Your task to perform on an android device: Show me popular games on the Play Store Image 0: 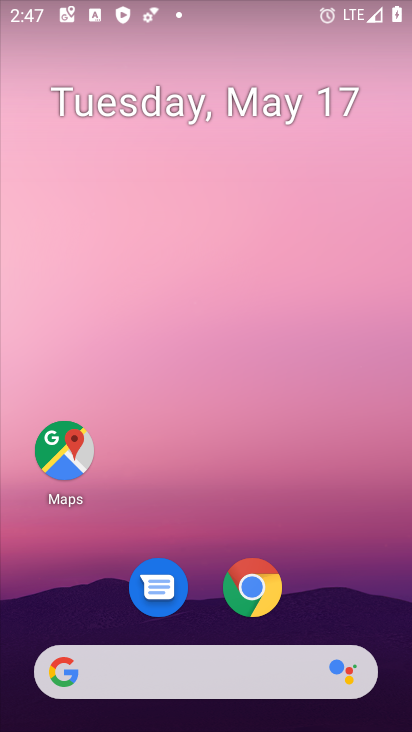
Step 0: drag from (205, 554) to (191, 232)
Your task to perform on an android device: Show me popular games on the Play Store Image 1: 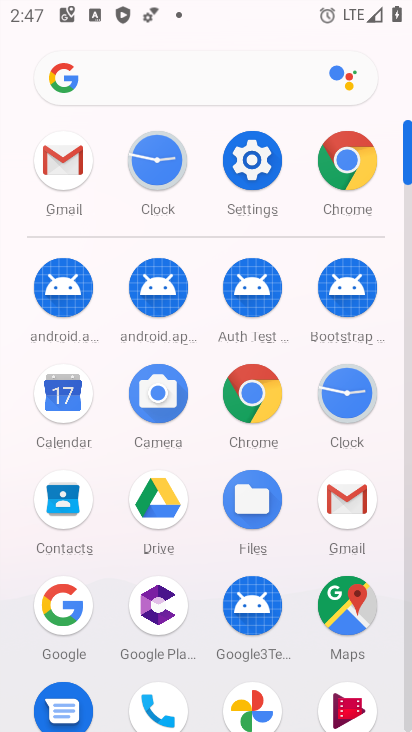
Step 1: drag from (193, 625) to (174, 161)
Your task to perform on an android device: Show me popular games on the Play Store Image 2: 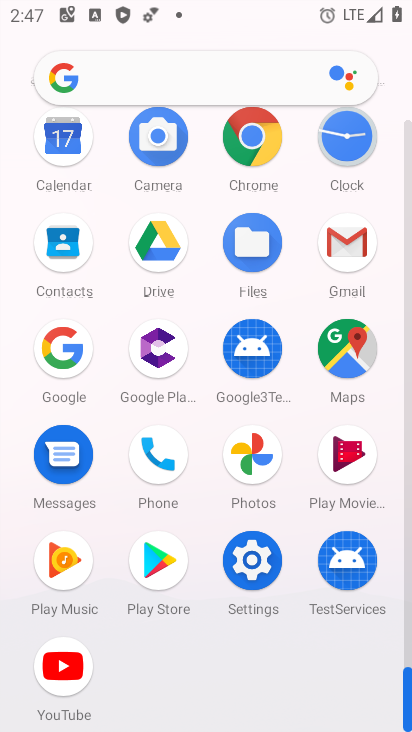
Step 2: click (153, 588)
Your task to perform on an android device: Show me popular games on the Play Store Image 3: 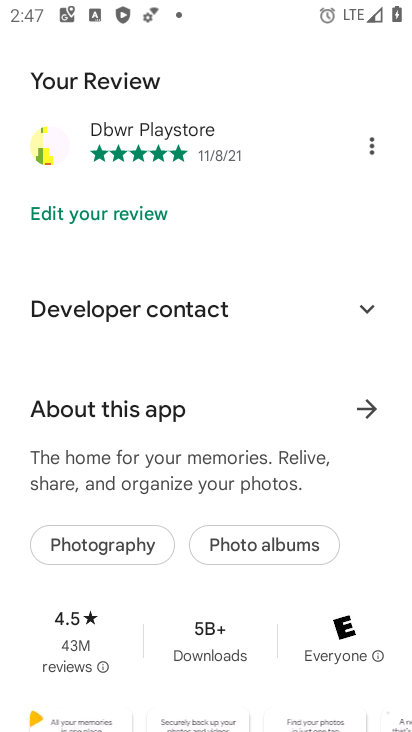
Step 3: drag from (209, 599) to (288, 730)
Your task to perform on an android device: Show me popular games on the Play Store Image 4: 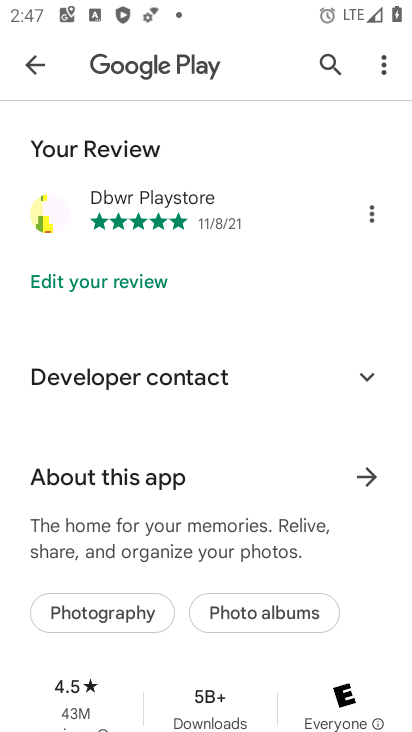
Step 4: click (31, 56)
Your task to perform on an android device: Show me popular games on the Play Store Image 5: 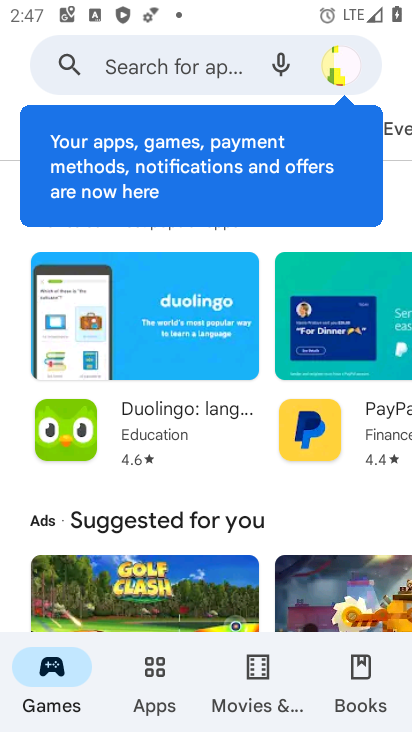
Step 5: drag from (296, 519) to (285, 231)
Your task to perform on an android device: Show me popular games on the Play Store Image 6: 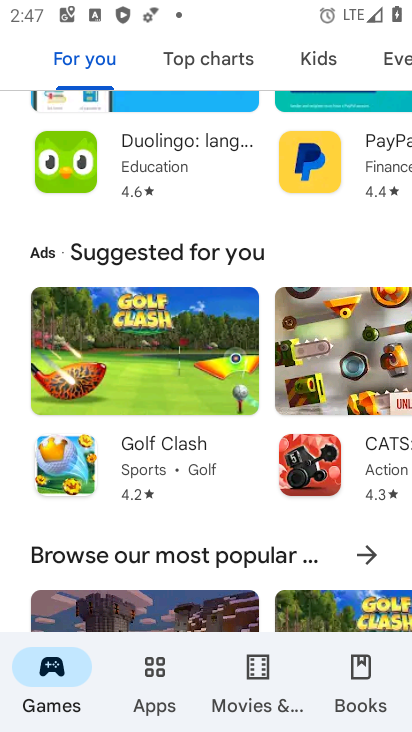
Step 6: click (373, 561)
Your task to perform on an android device: Show me popular games on the Play Store Image 7: 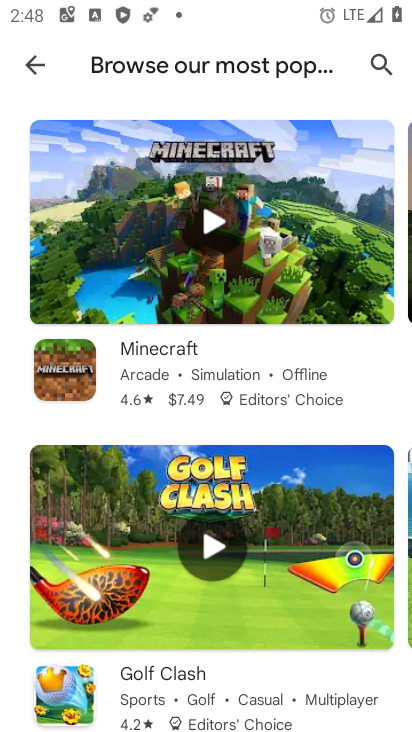
Step 7: task complete